Your task to perform on an android device: Search for sushi restaurants on Maps Image 0: 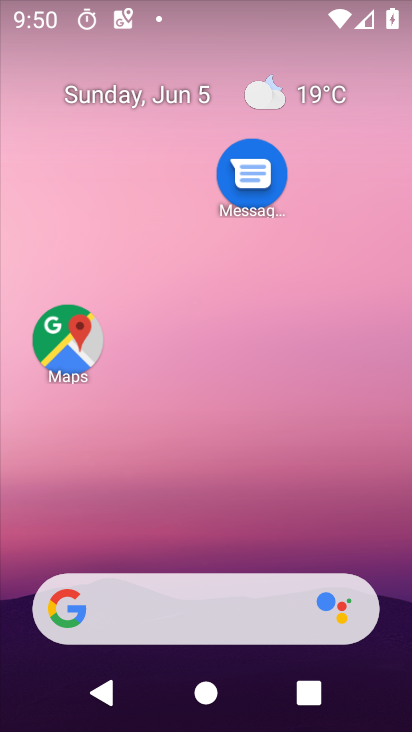
Step 0: drag from (173, 313) to (8, 302)
Your task to perform on an android device: Search for sushi restaurants on Maps Image 1: 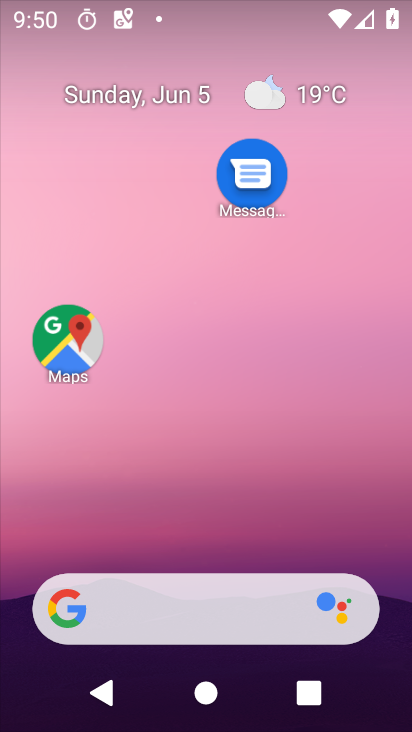
Step 1: click (81, 335)
Your task to perform on an android device: Search for sushi restaurants on Maps Image 2: 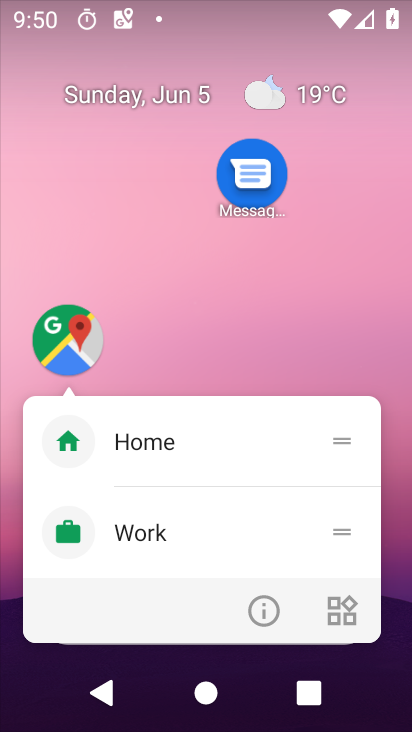
Step 2: click (248, 615)
Your task to perform on an android device: Search for sushi restaurants on Maps Image 3: 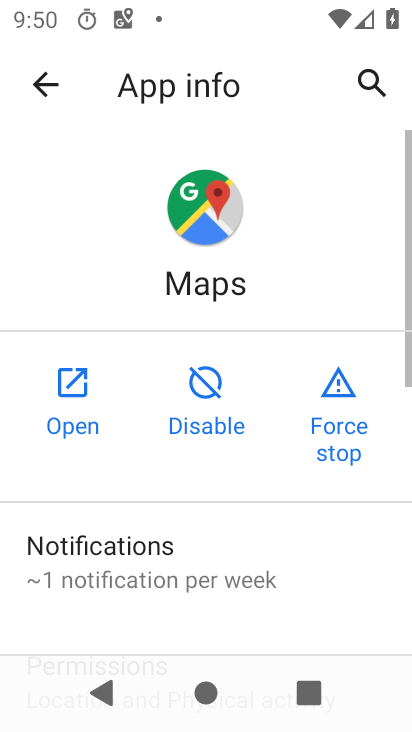
Step 3: click (76, 426)
Your task to perform on an android device: Search for sushi restaurants on Maps Image 4: 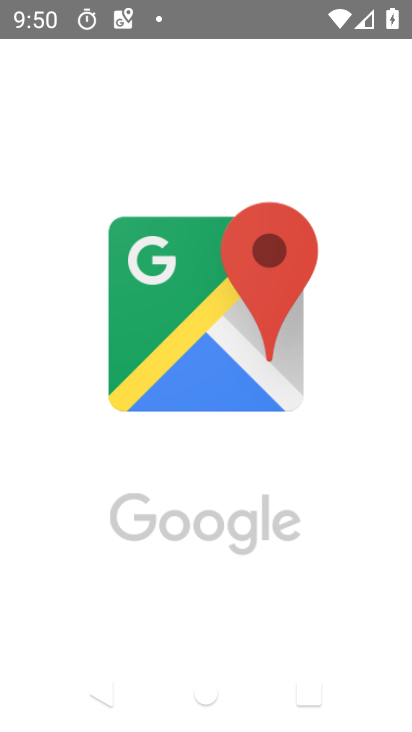
Step 4: drag from (214, 447) to (278, 105)
Your task to perform on an android device: Search for sushi restaurants on Maps Image 5: 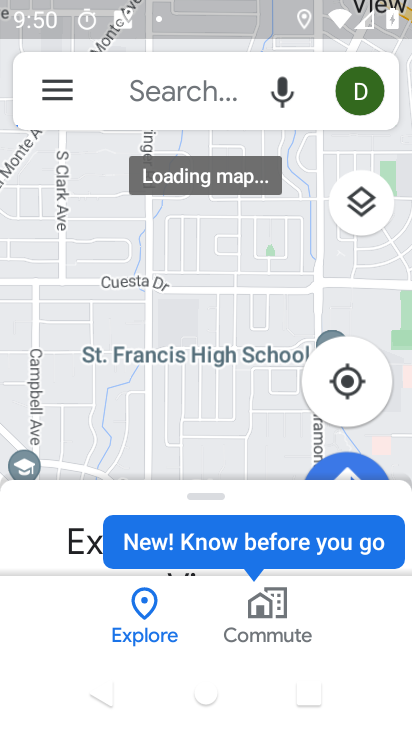
Step 5: click (153, 81)
Your task to perform on an android device: Search for sushi restaurants on Maps Image 6: 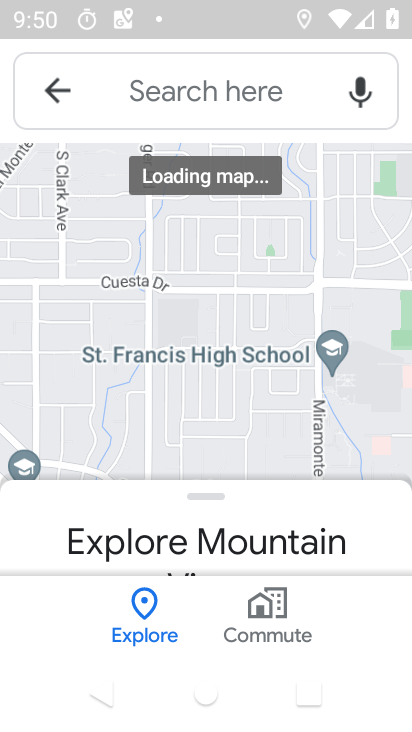
Step 6: click (152, 84)
Your task to perform on an android device: Search for sushi restaurants on Maps Image 7: 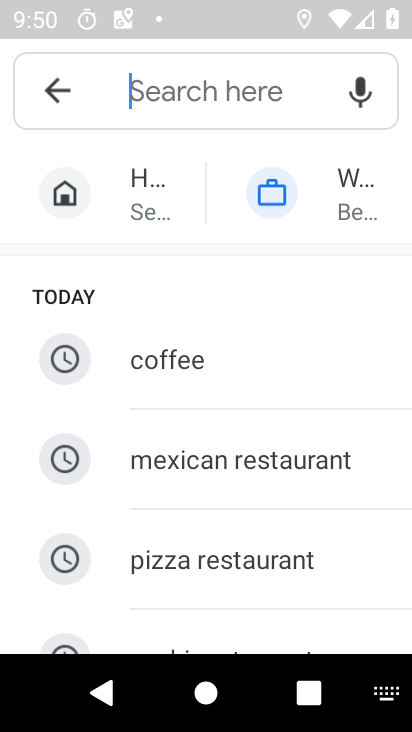
Step 7: drag from (235, 571) to (339, 113)
Your task to perform on an android device: Search for sushi restaurants on Maps Image 8: 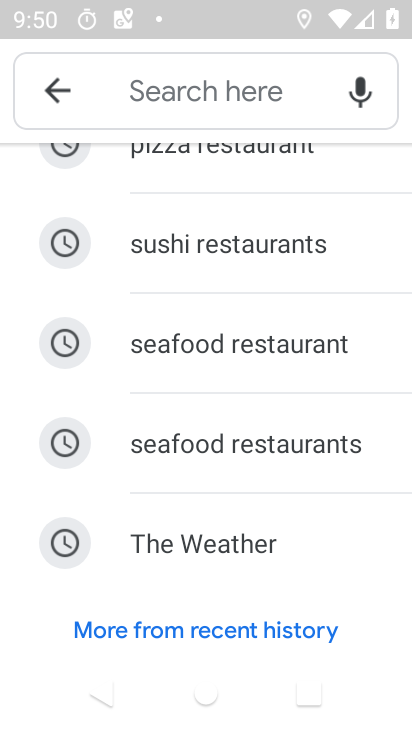
Step 8: click (225, 277)
Your task to perform on an android device: Search for sushi restaurants on Maps Image 9: 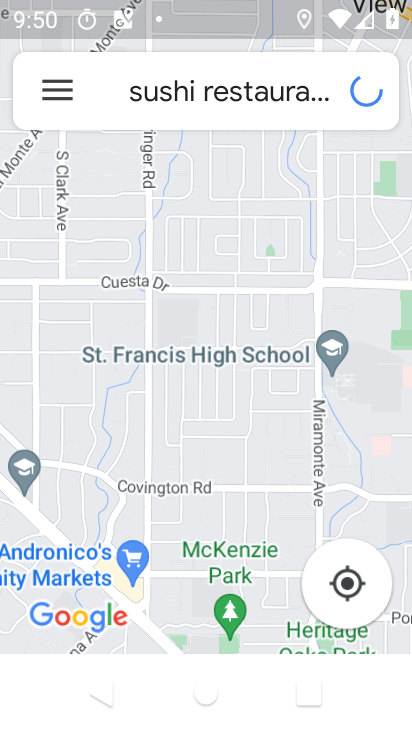
Step 9: task complete